Your task to perform on an android device: change keyboard looks Image 0: 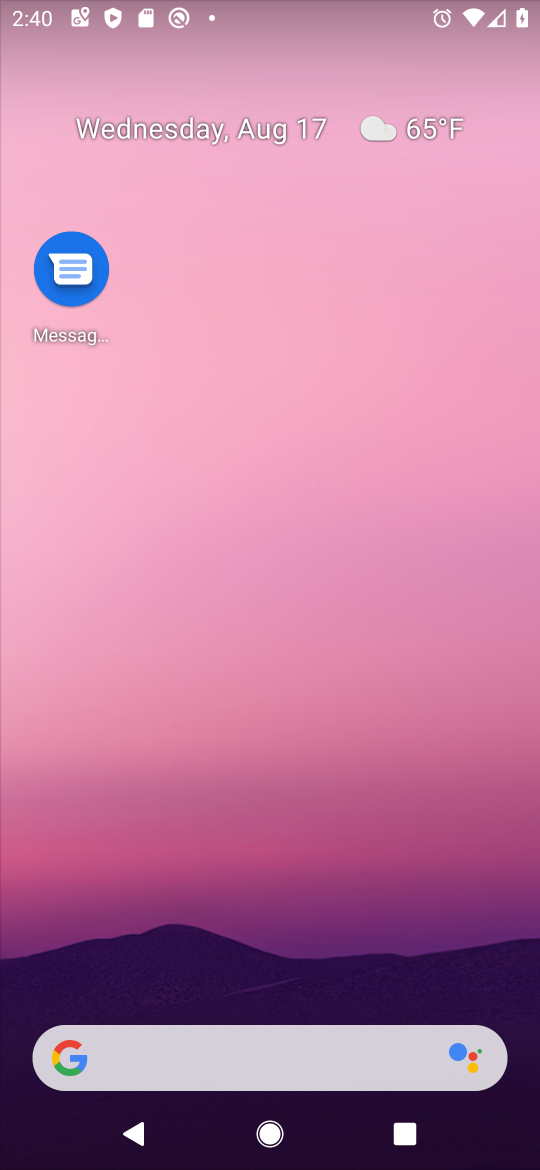
Step 0: drag from (234, 986) to (206, 295)
Your task to perform on an android device: change keyboard looks Image 1: 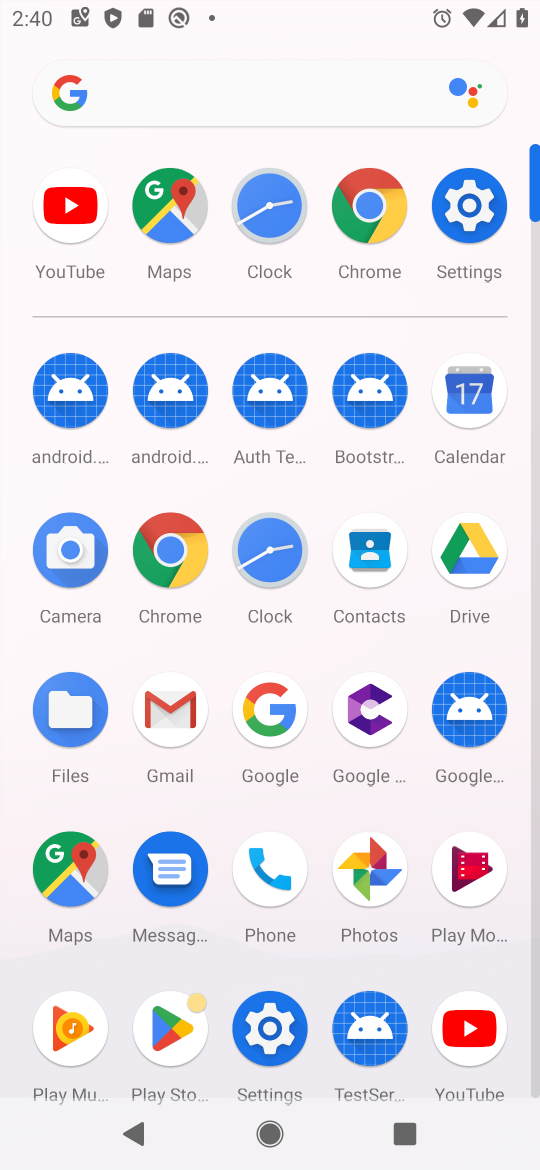
Step 1: click (279, 1024)
Your task to perform on an android device: change keyboard looks Image 2: 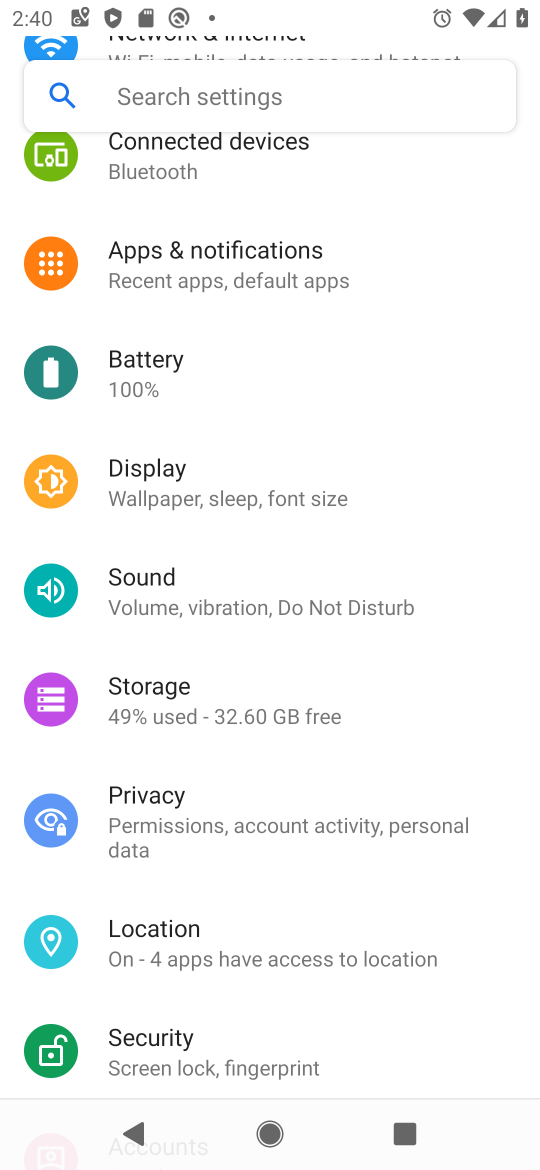
Step 2: drag from (272, 910) to (153, 188)
Your task to perform on an android device: change keyboard looks Image 3: 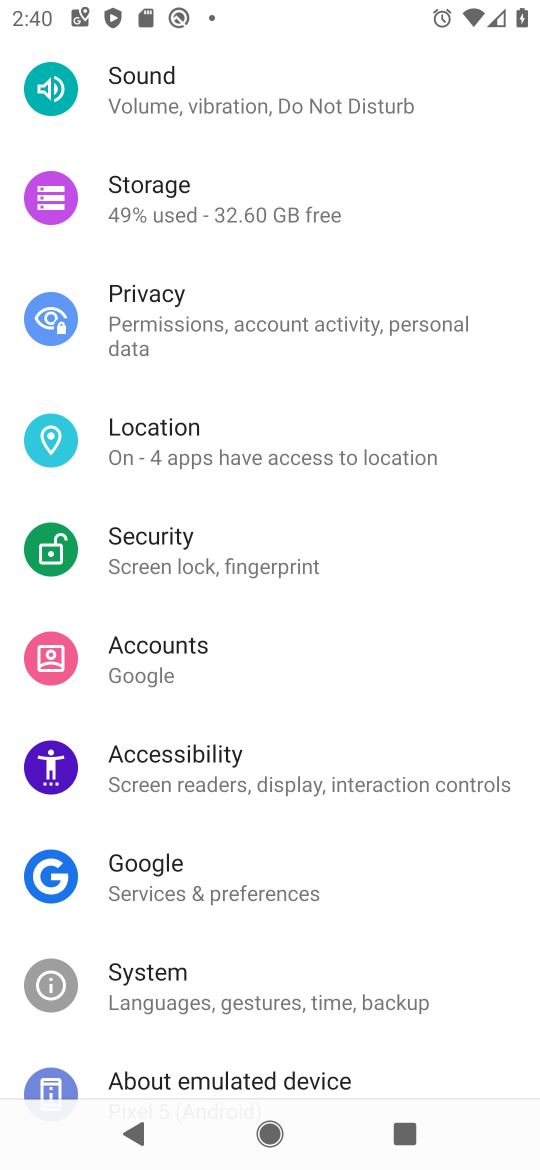
Step 3: click (145, 975)
Your task to perform on an android device: change keyboard looks Image 4: 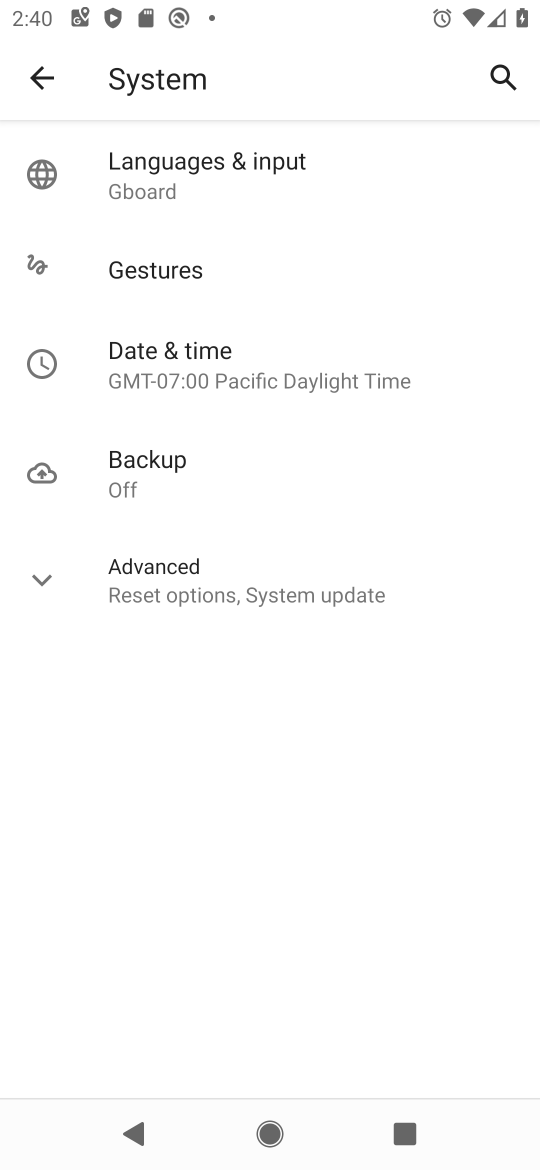
Step 4: click (254, 186)
Your task to perform on an android device: change keyboard looks Image 5: 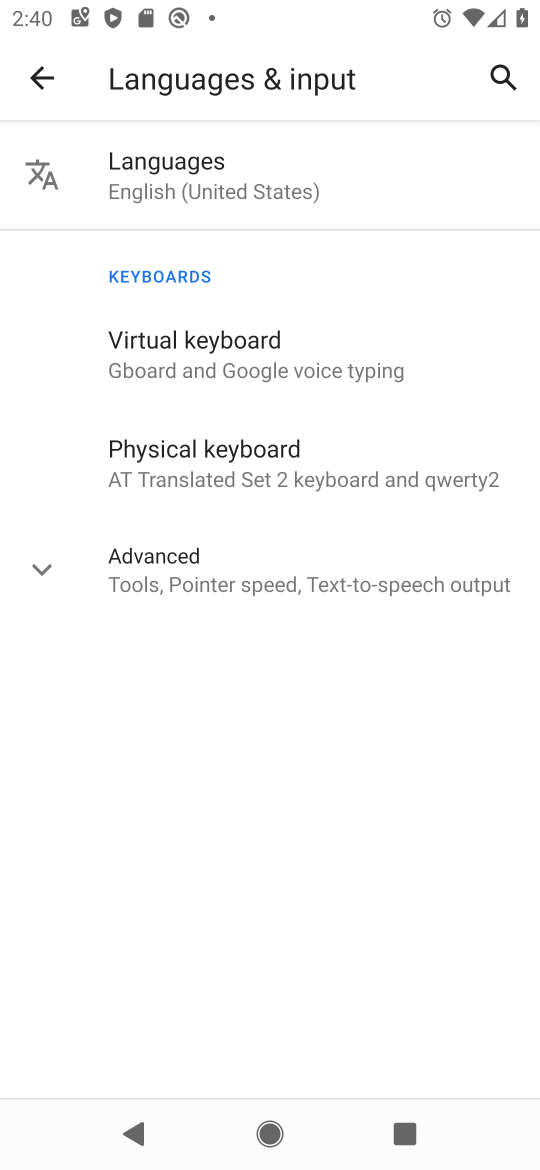
Step 5: click (129, 394)
Your task to perform on an android device: change keyboard looks Image 6: 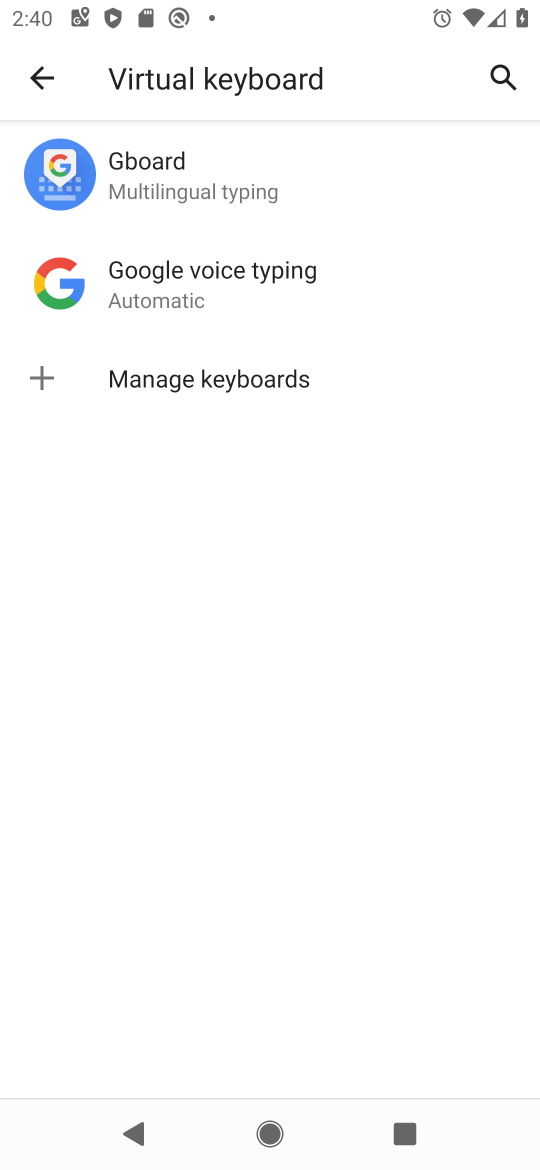
Step 6: click (106, 193)
Your task to perform on an android device: change keyboard looks Image 7: 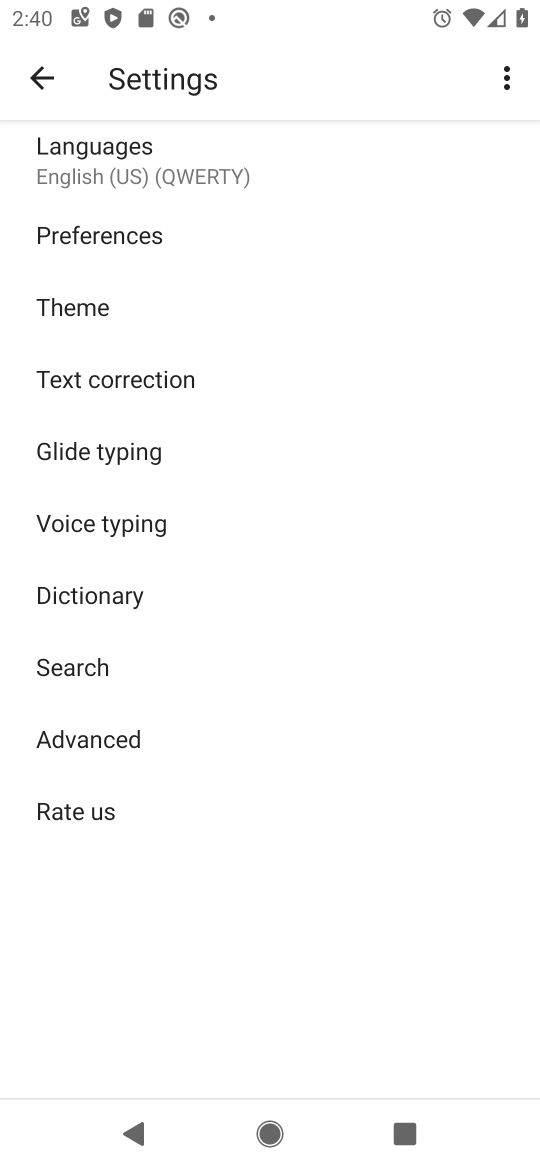
Step 7: click (142, 295)
Your task to perform on an android device: change keyboard looks Image 8: 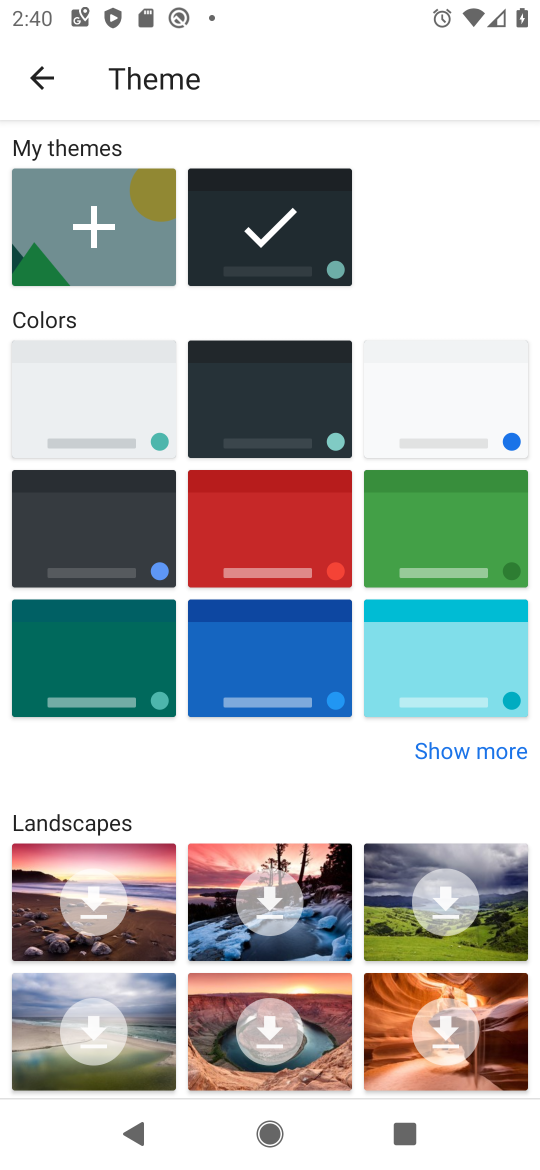
Step 8: click (80, 422)
Your task to perform on an android device: change keyboard looks Image 9: 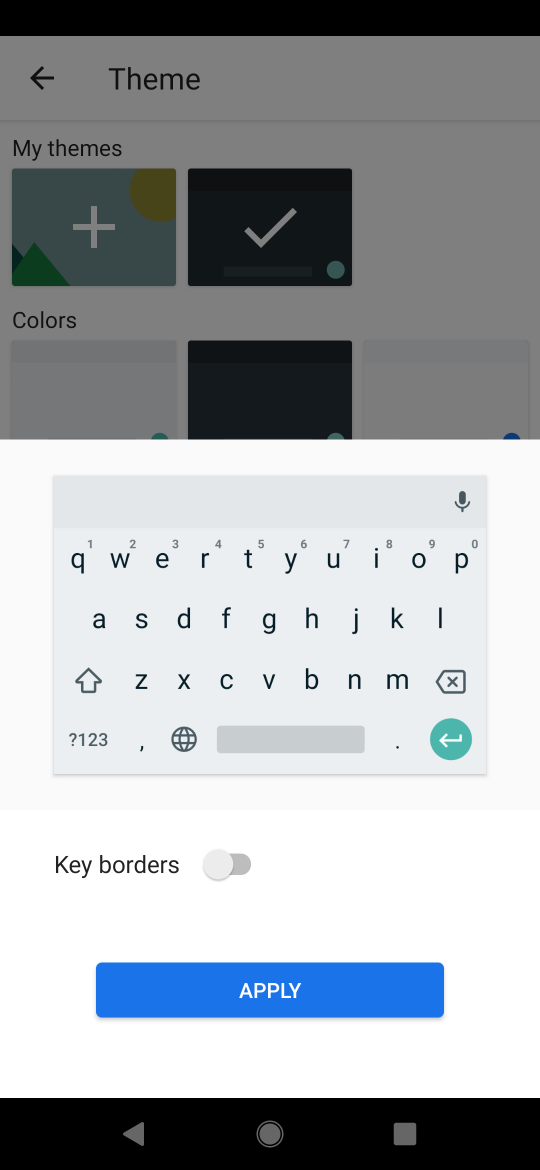
Step 9: click (181, 1001)
Your task to perform on an android device: change keyboard looks Image 10: 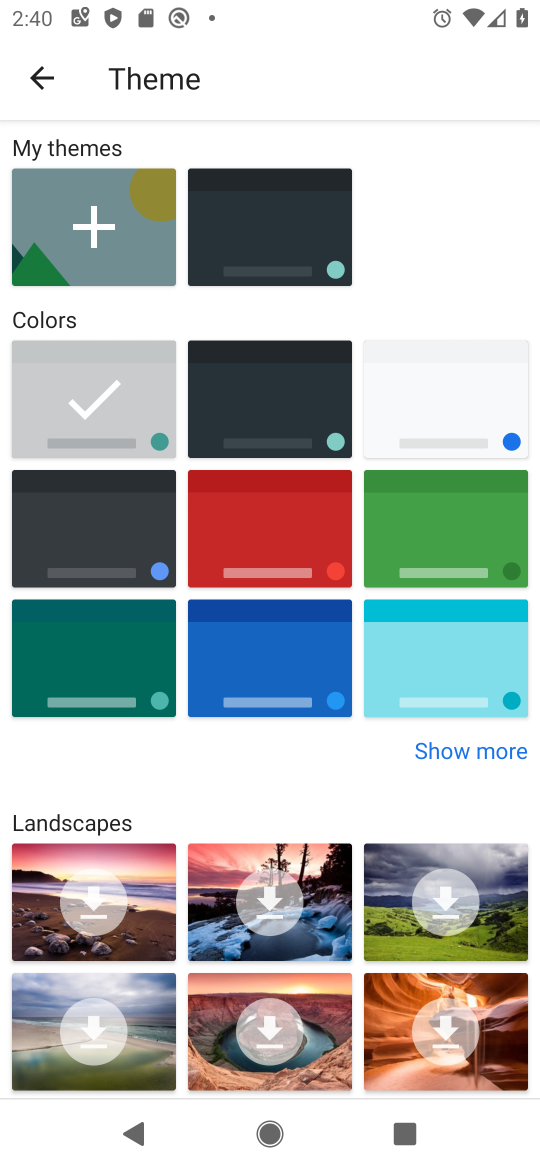
Step 10: task complete